Your task to perform on an android device: Open calendar and show me the second week of next month Image 0: 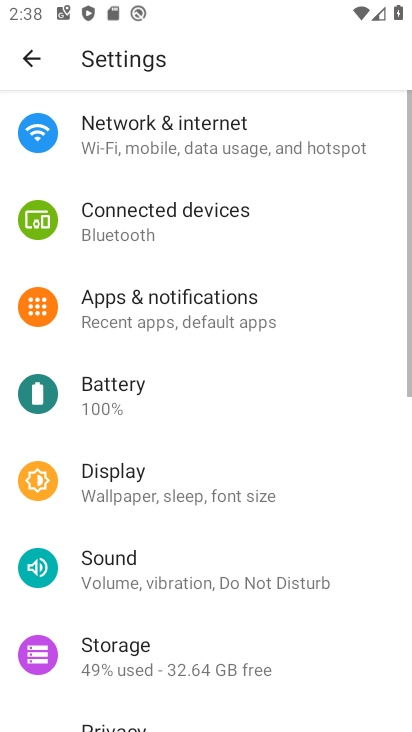
Step 0: press home button
Your task to perform on an android device: Open calendar and show me the second week of next month Image 1: 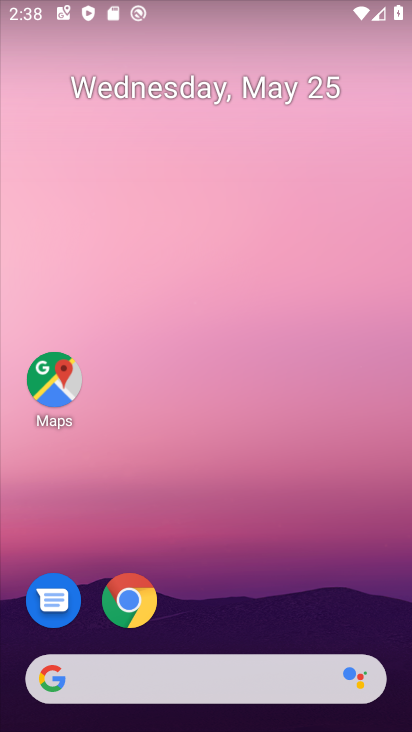
Step 1: drag from (37, 496) to (191, 198)
Your task to perform on an android device: Open calendar and show me the second week of next month Image 2: 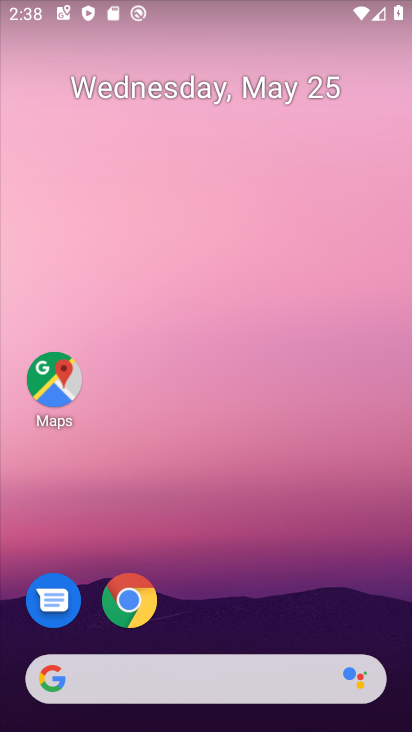
Step 2: drag from (45, 534) to (188, 172)
Your task to perform on an android device: Open calendar and show me the second week of next month Image 3: 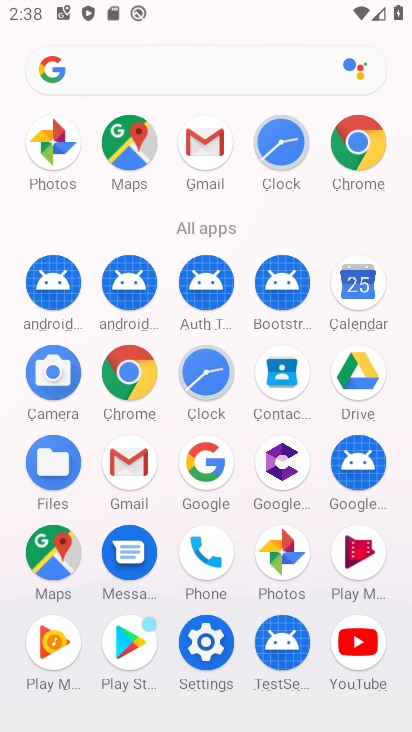
Step 3: click (360, 280)
Your task to perform on an android device: Open calendar and show me the second week of next month Image 4: 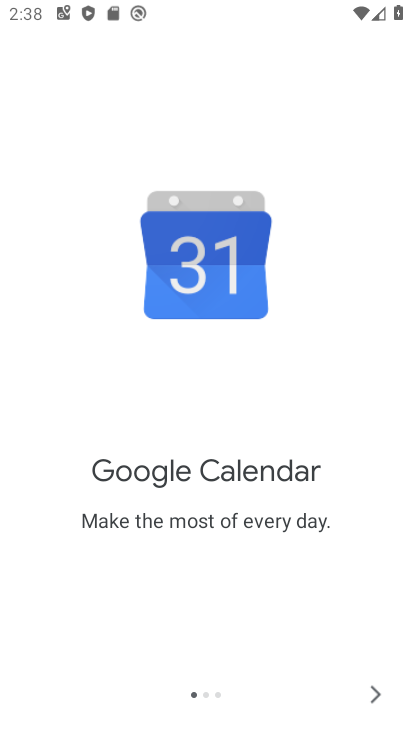
Step 4: click (377, 689)
Your task to perform on an android device: Open calendar and show me the second week of next month Image 5: 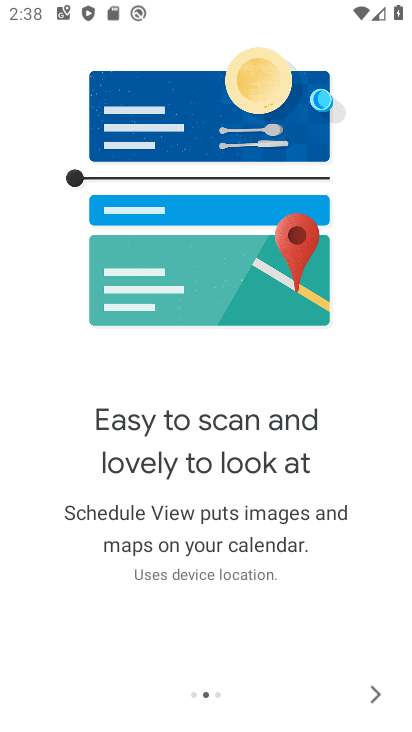
Step 5: click (377, 688)
Your task to perform on an android device: Open calendar and show me the second week of next month Image 6: 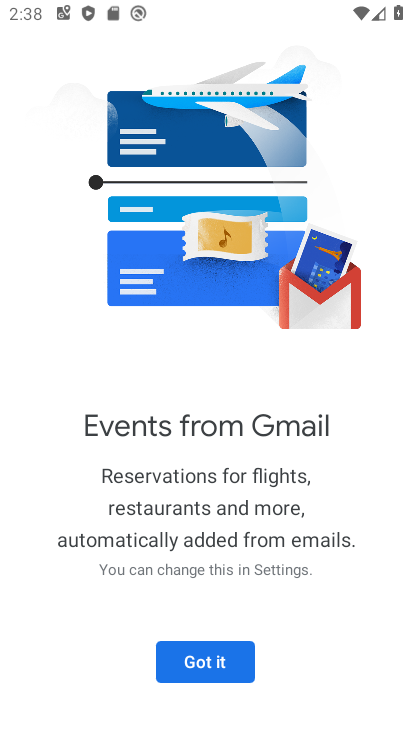
Step 6: click (230, 660)
Your task to perform on an android device: Open calendar and show me the second week of next month Image 7: 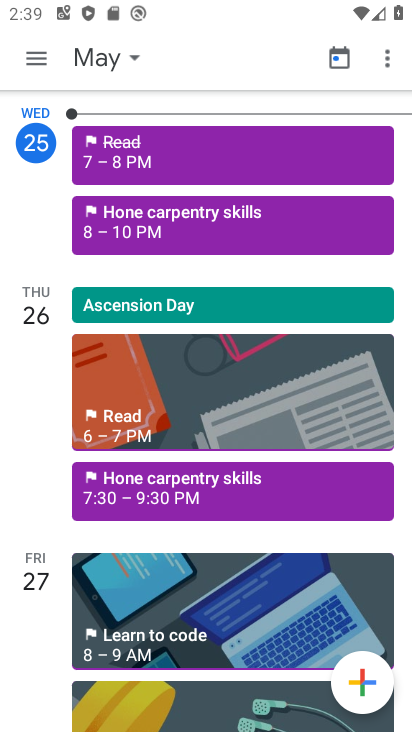
Step 7: task complete